Your task to perform on an android device: turn off notifications settings in the gmail app Image 0: 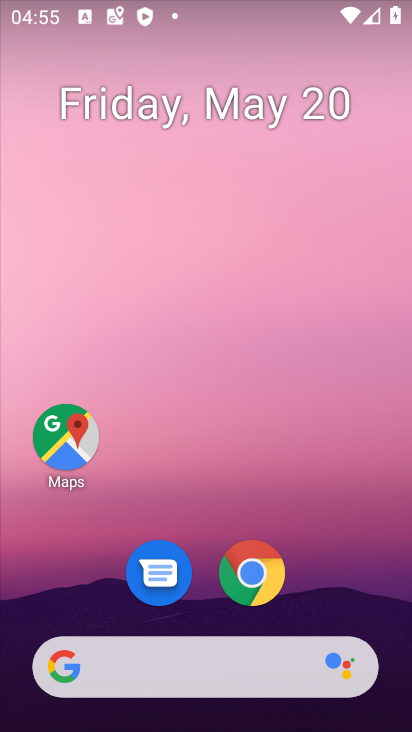
Step 0: drag from (383, 632) to (283, 130)
Your task to perform on an android device: turn off notifications settings in the gmail app Image 1: 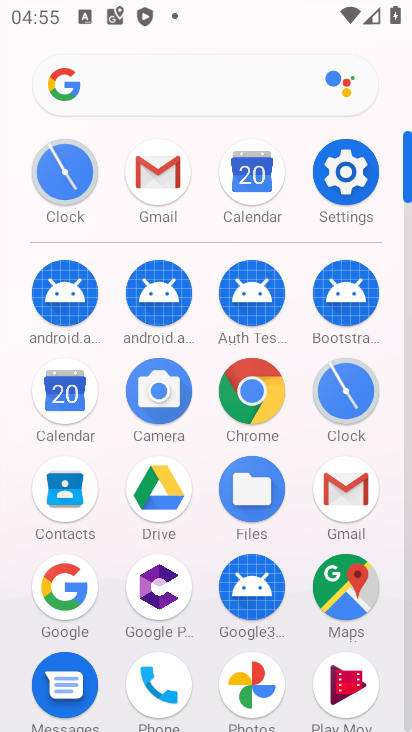
Step 1: click (407, 715)
Your task to perform on an android device: turn off notifications settings in the gmail app Image 2: 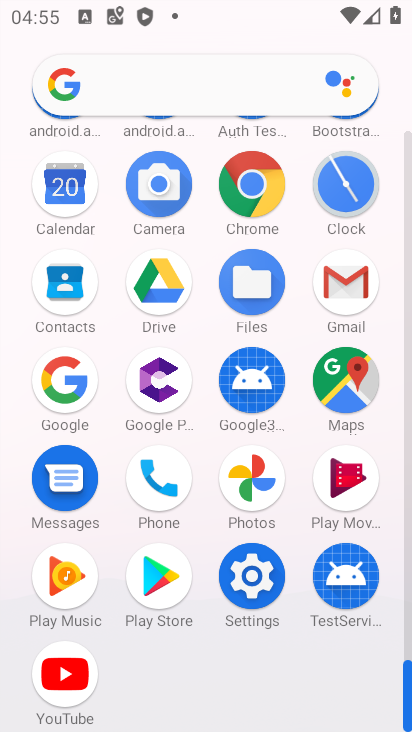
Step 2: click (343, 278)
Your task to perform on an android device: turn off notifications settings in the gmail app Image 3: 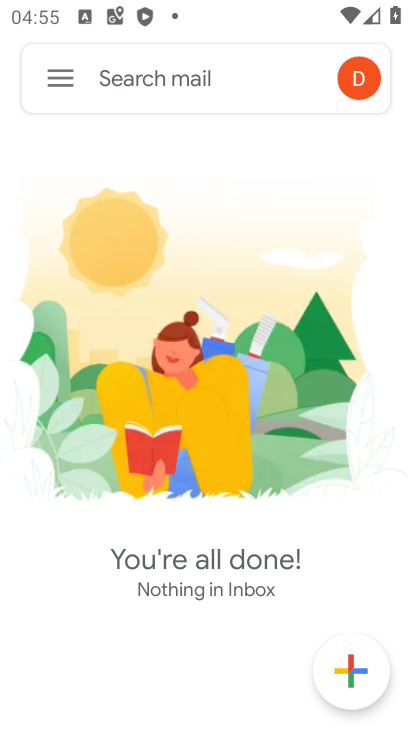
Step 3: click (58, 74)
Your task to perform on an android device: turn off notifications settings in the gmail app Image 4: 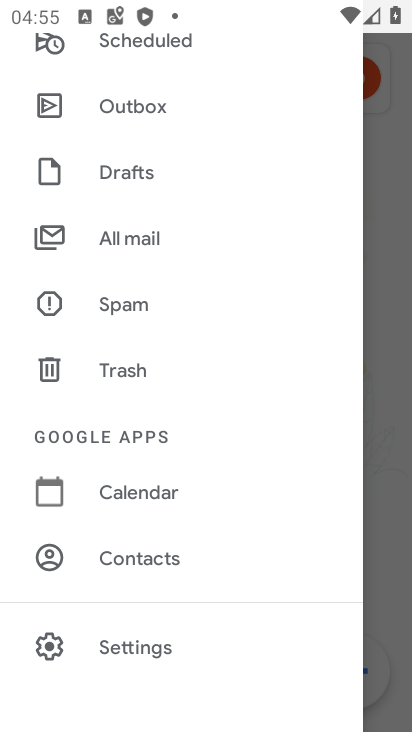
Step 4: click (133, 648)
Your task to perform on an android device: turn off notifications settings in the gmail app Image 5: 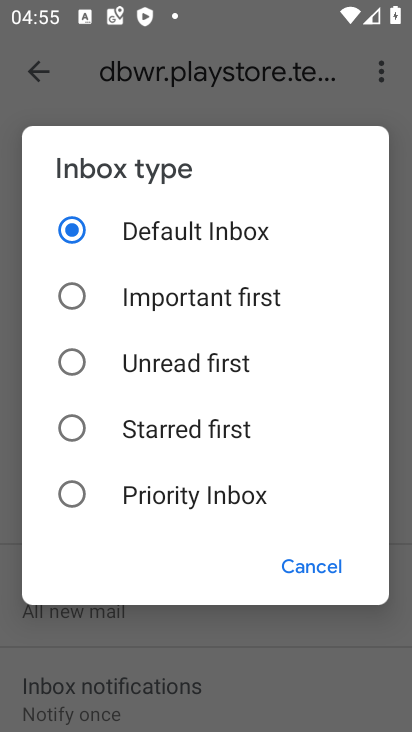
Step 5: click (328, 573)
Your task to perform on an android device: turn off notifications settings in the gmail app Image 6: 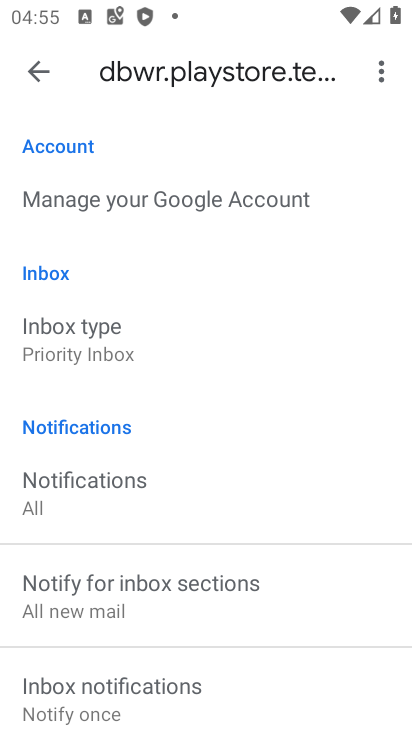
Step 6: drag from (214, 625) to (237, 164)
Your task to perform on an android device: turn off notifications settings in the gmail app Image 7: 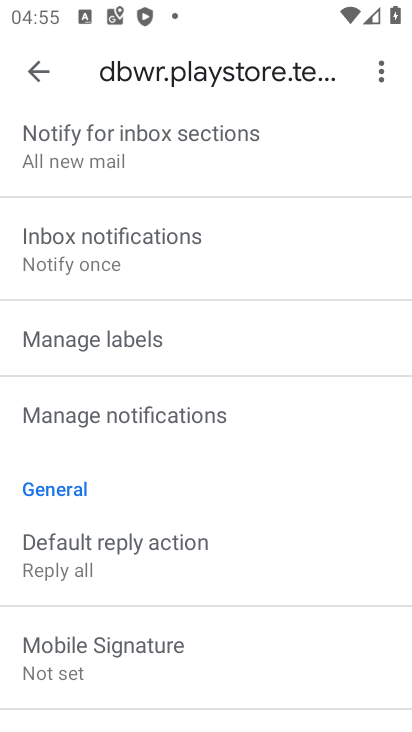
Step 7: click (112, 415)
Your task to perform on an android device: turn off notifications settings in the gmail app Image 8: 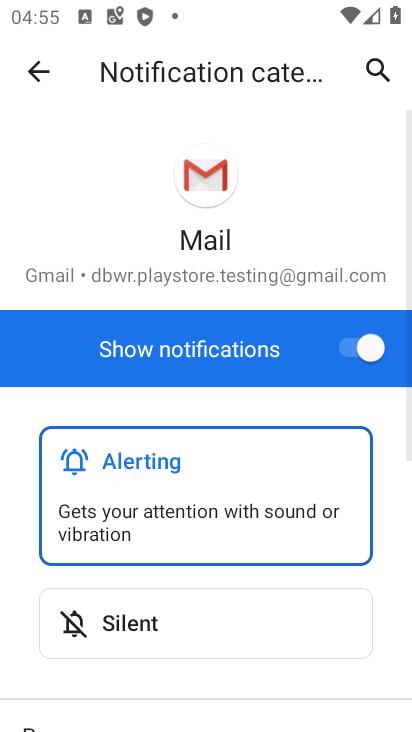
Step 8: click (350, 341)
Your task to perform on an android device: turn off notifications settings in the gmail app Image 9: 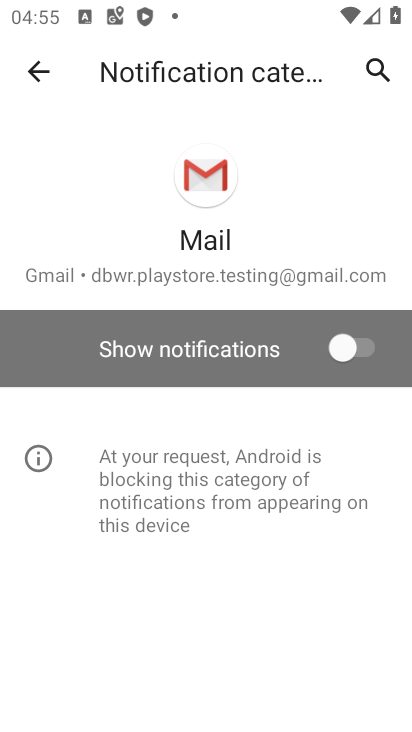
Step 9: task complete